Your task to perform on an android device: turn on javascript in the chrome app Image 0: 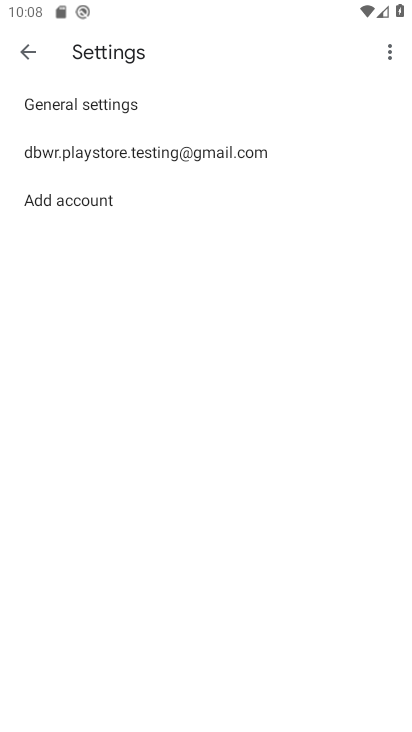
Step 0: press home button
Your task to perform on an android device: turn on javascript in the chrome app Image 1: 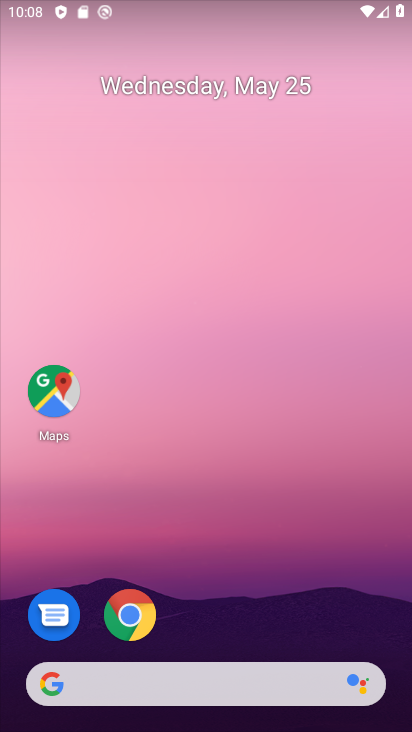
Step 1: click (144, 620)
Your task to perform on an android device: turn on javascript in the chrome app Image 2: 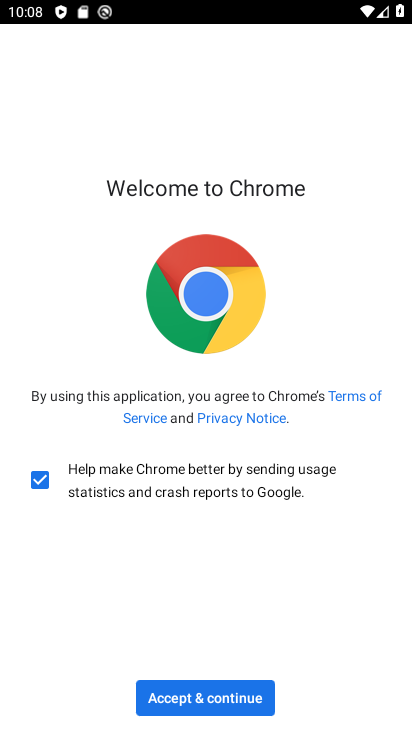
Step 2: click (171, 690)
Your task to perform on an android device: turn on javascript in the chrome app Image 3: 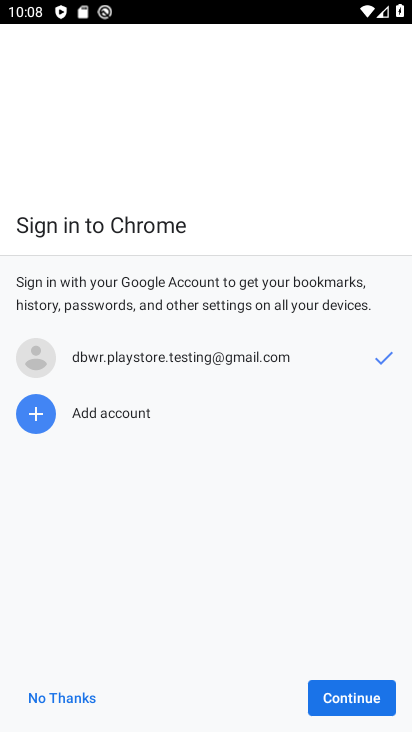
Step 3: click (338, 685)
Your task to perform on an android device: turn on javascript in the chrome app Image 4: 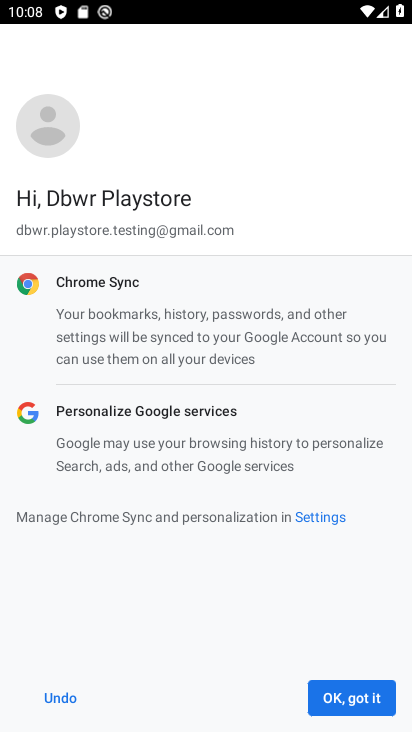
Step 4: click (337, 697)
Your task to perform on an android device: turn on javascript in the chrome app Image 5: 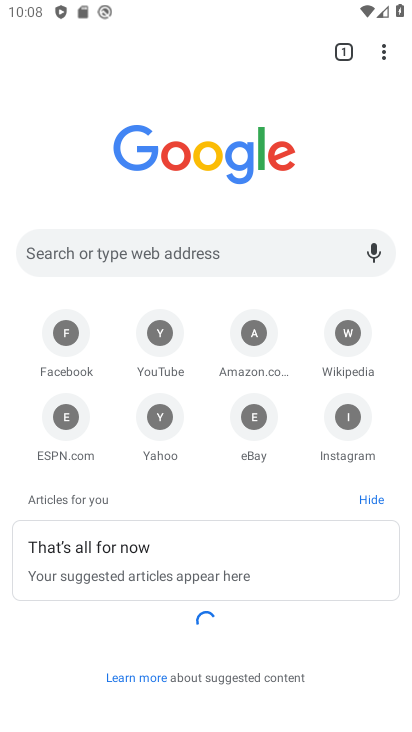
Step 5: click (380, 64)
Your task to perform on an android device: turn on javascript in the chrome app Image 6: 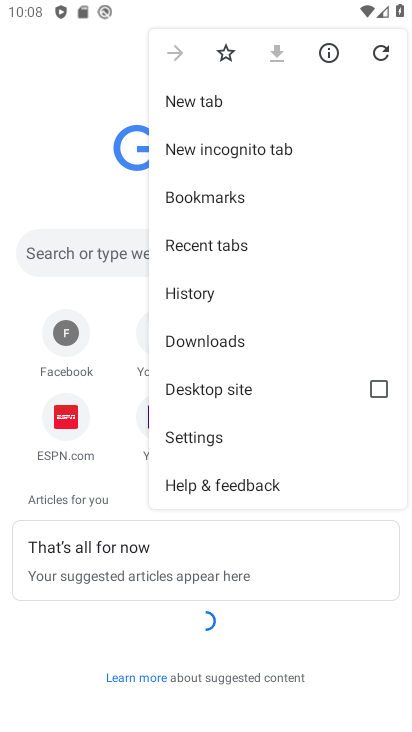
Step 6: click (198, 421)
Your task to perform on an android device: turn on javascript in the chrome app Image 7: 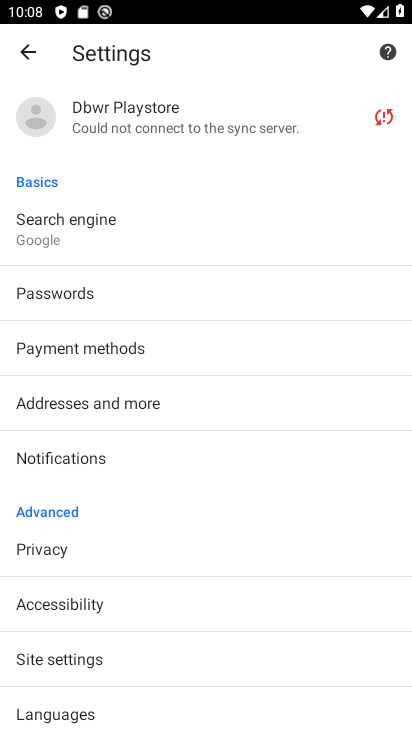
Step 7: click (62, 655)
Your task to perform on an android device: turn on javascript in the chrome app Image 8: 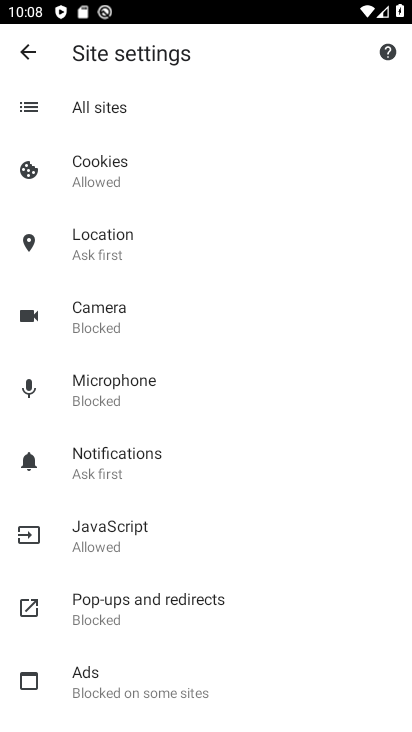
Step 8: click (131, 554)
Your task to perform on an android device: turn on javascript in the chrome app Image 9: 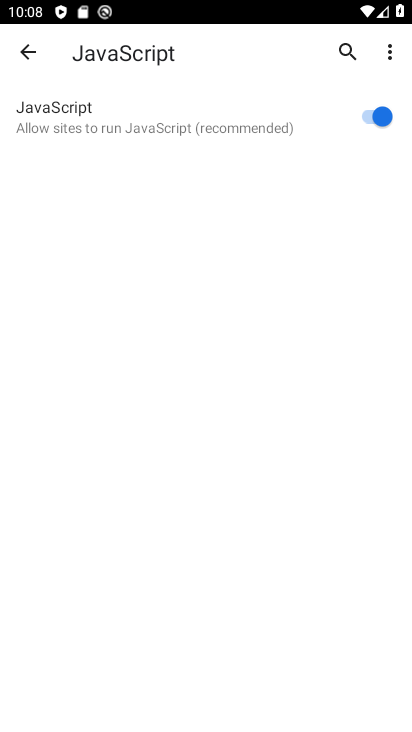
Step 9: task complete